Your task to perform on an android device: open app "Adobe Acrobat Reader: Edit PDF" Image 0: 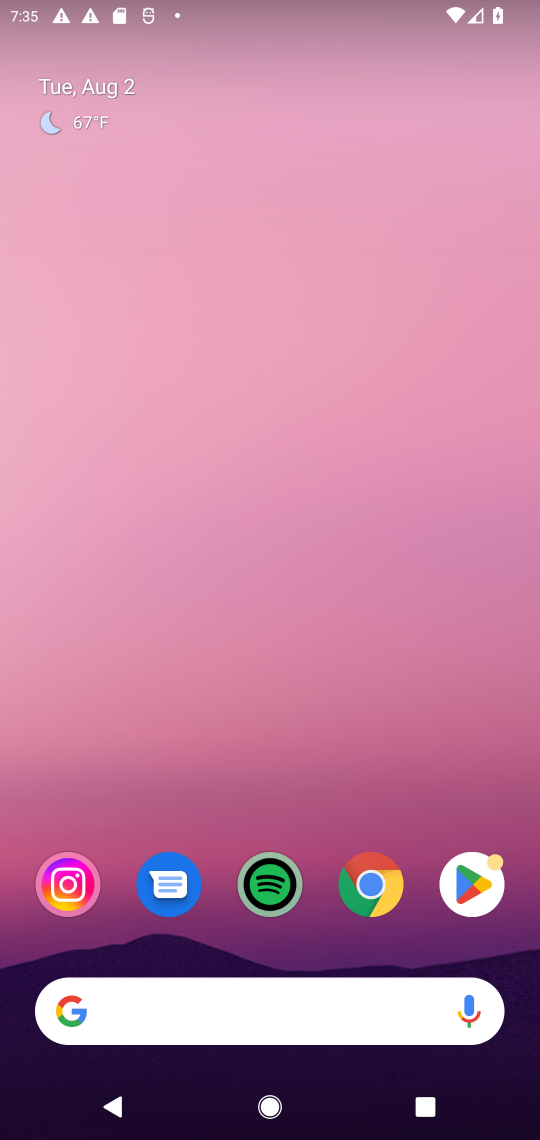
Step 0: press home button
Your task to perform on an android device: open app "Adobe Acrobat Reader: Edit PDF" Image 1: 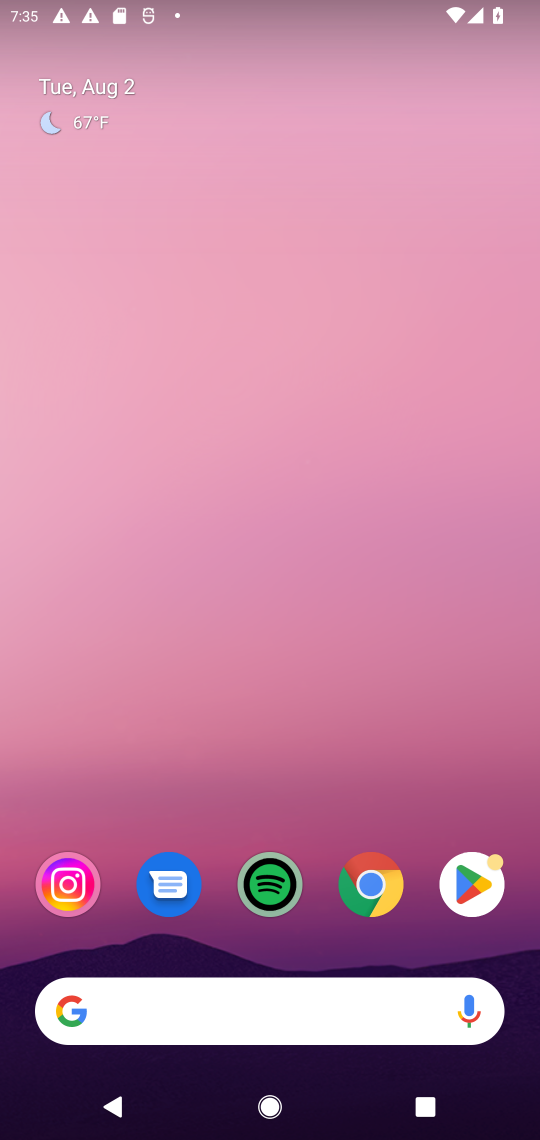
Step 1: click (466, 881)
Your task to perform on an android device: open app "Adobe Acrobat Reader: Edit PDF" Image 2: 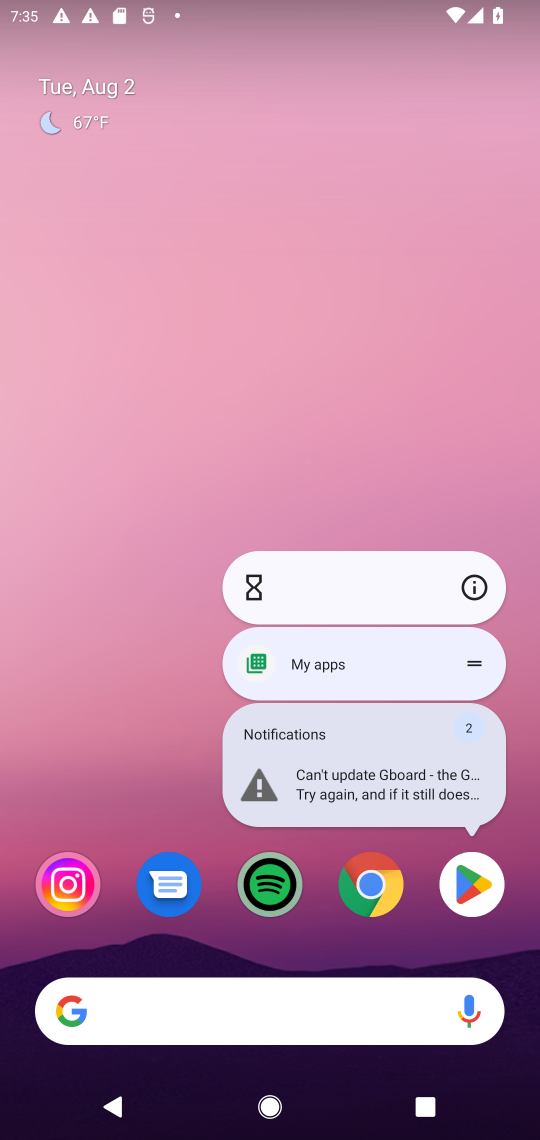
Step 2: click (469, 889)
Your task to perform on an android device: open app "Adobe Acrobat Reader: Edit PDF" Image 3: 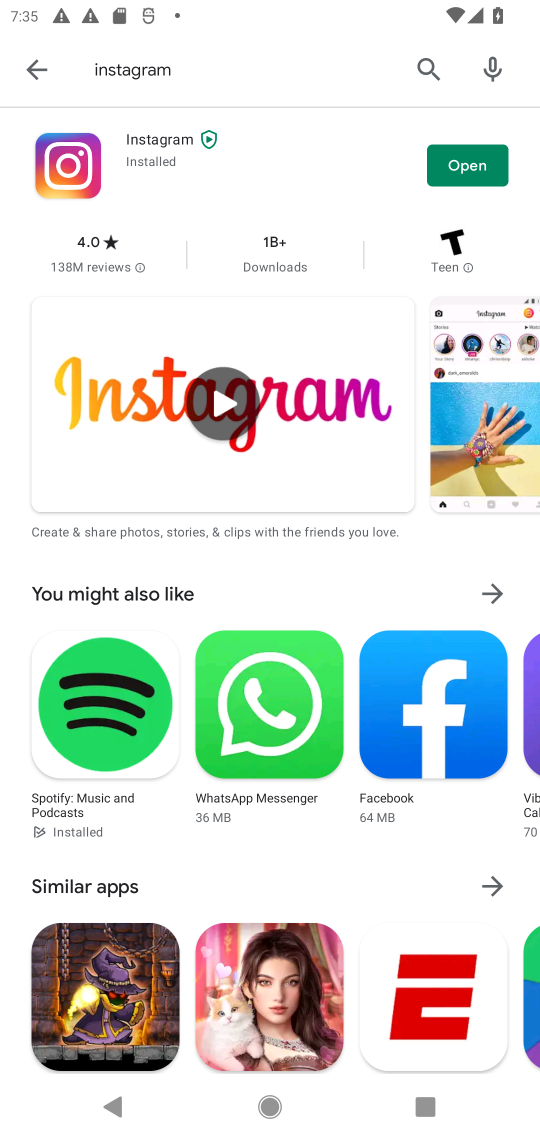
Step 3: click (414, 74)
Your task to perform on an android device: open app "Adobe Acrobat Reader: Edit PDF" Image 4: 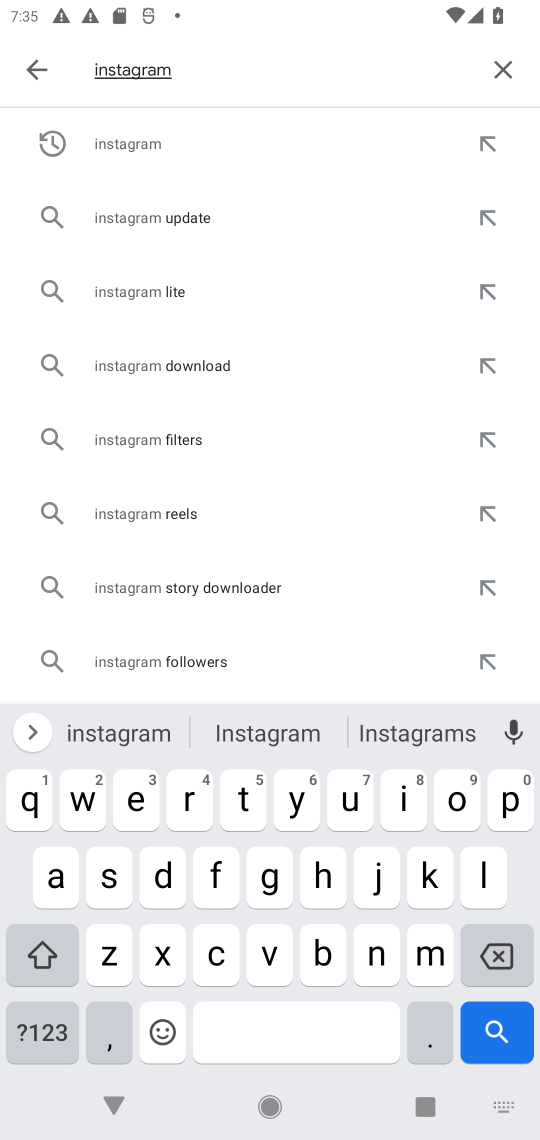
Step 4: click (502, 64)
Your task to perform on an android device: open app "Adobe Acrobat Reader: Edit PDF" Image 5: 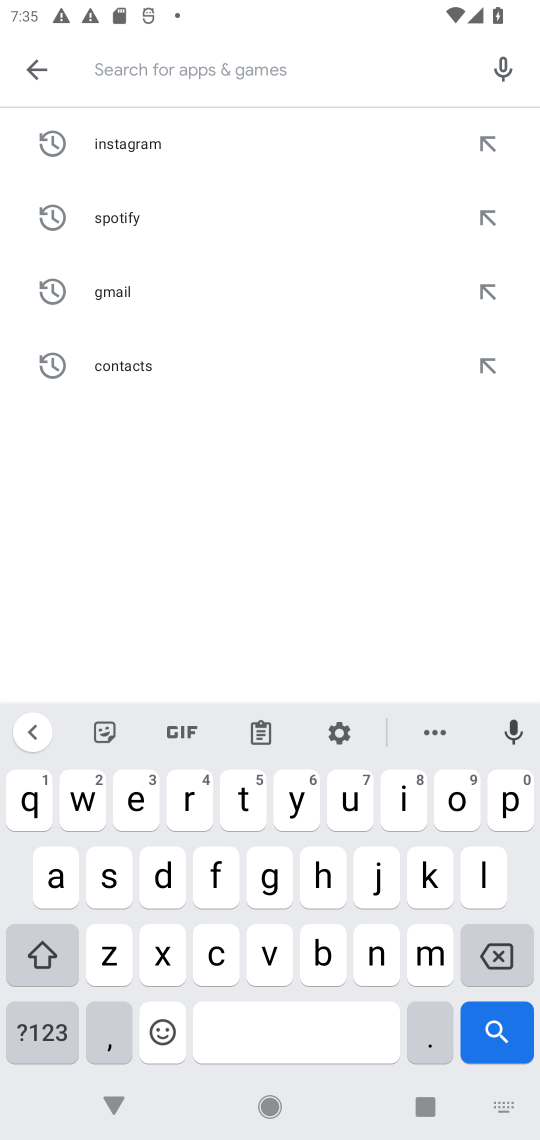
Step 5: click (44, 874)
Your task to perform on an android device: open app "Adobe Acrobat Reader: Edit PDF" Image 6: 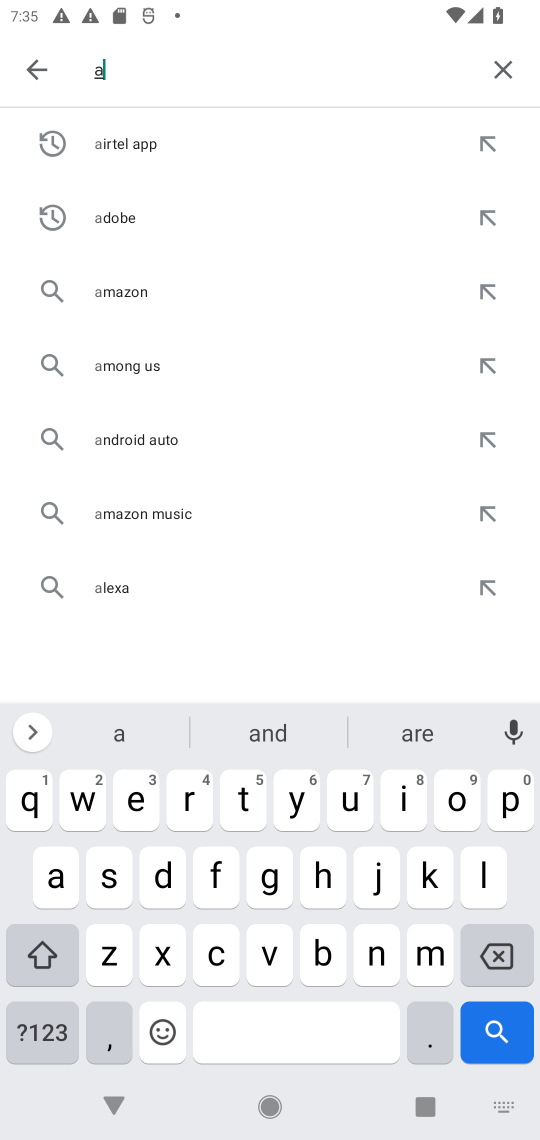
Step 6: click (167, 881)
Your task to perform on an android device: open app "Adobe Acrobat Reader: Edit PDF" Image 7: 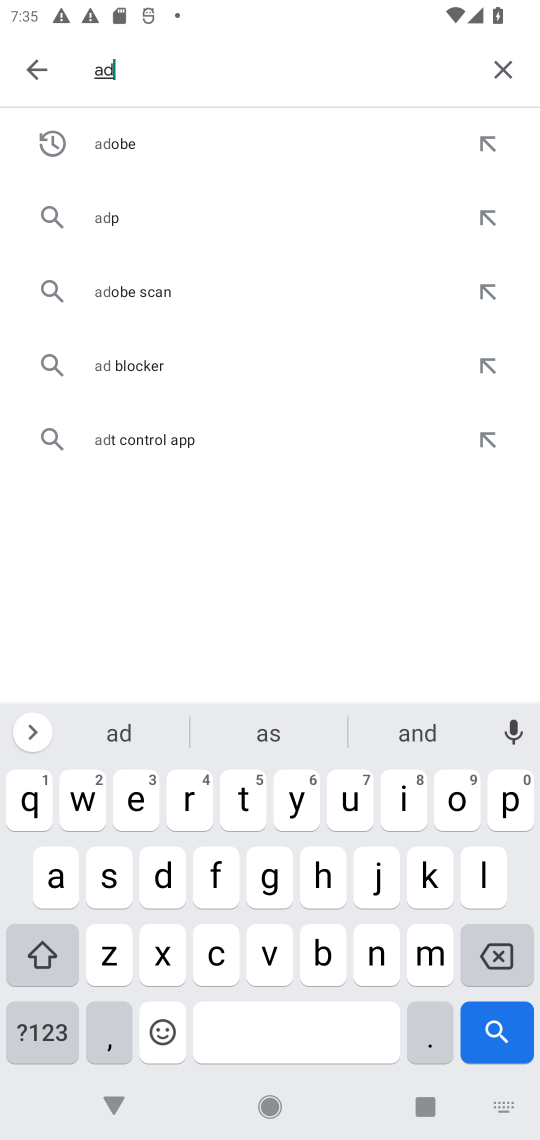
Step 7: click (460, 810)
Your task to perform on an android device: open app "Adobe Acrobat Reader: Edit PDF" Image 8: 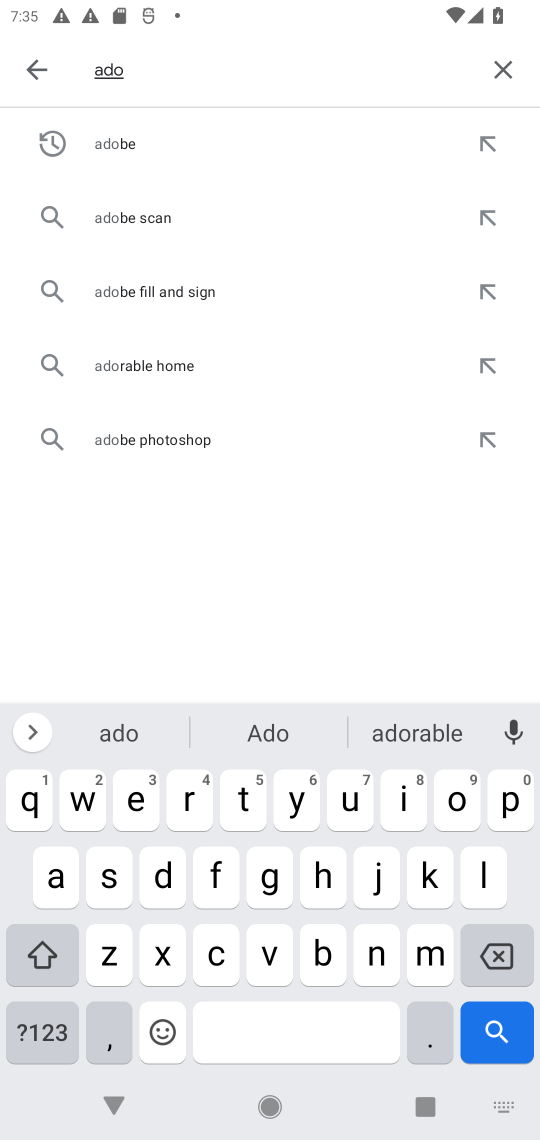
Step 8: click (162, 156)
Your task to perform on an android device: open app "Adobe Acrobat Reader: Edit PDF" Image 9: 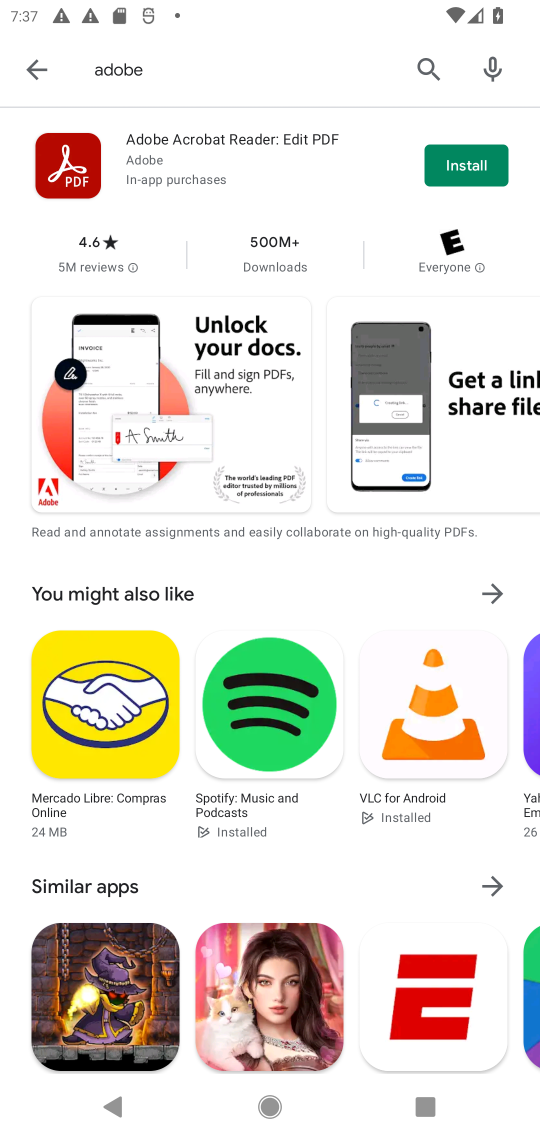
Step 9: task complete